Your task to perform on an android device: turn off improve location accuracy Image 0: 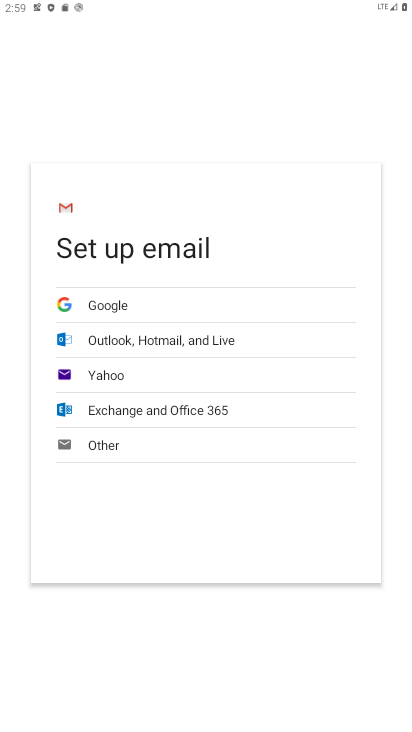
Step 0: press home button
Your task to perform on an android device: turn off improve location accuracy Image 1: 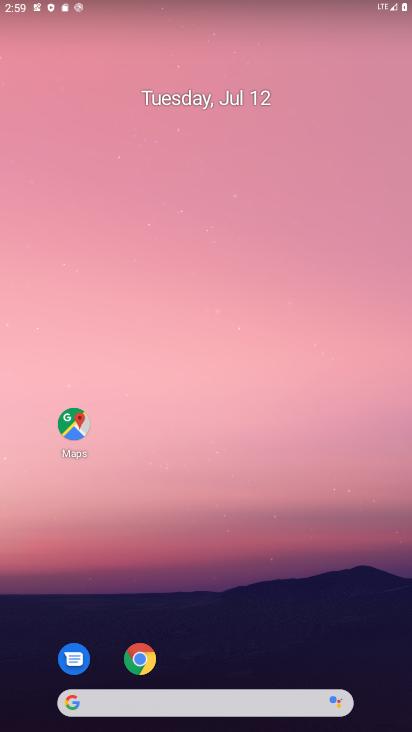
Step 1: click (199, 726)
Your task to perform on an android device: turn off improve location accuracy Image 2: 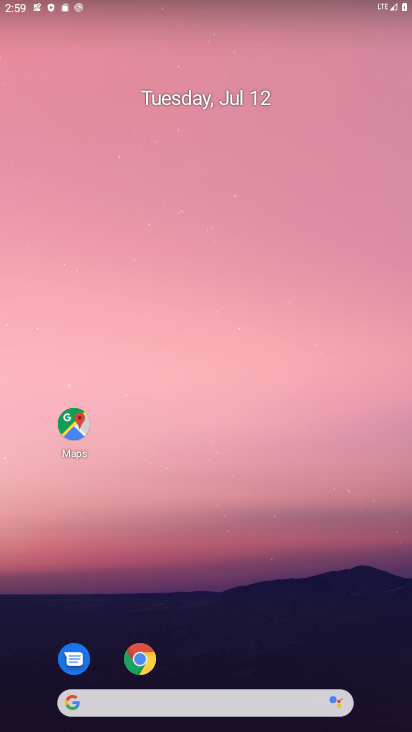
Step 2: click (176, 109)
Your task to perform on an android device: turn off improve location accuracy Image 3: 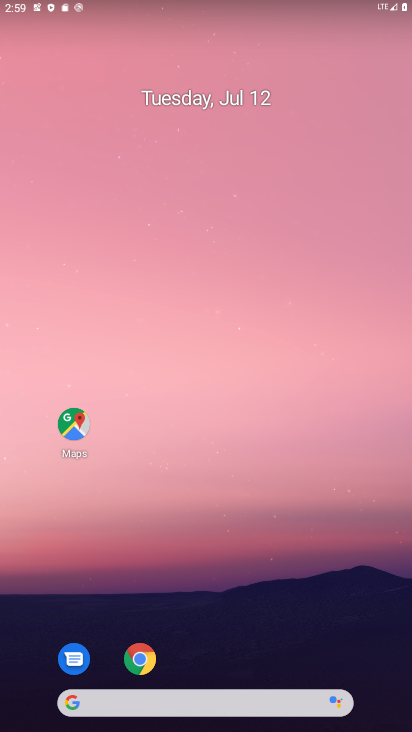
Step 3: drag from (217, 709) to (220, 139)
Your task to perform on an android device: turn off improve location accuracy Image 4: 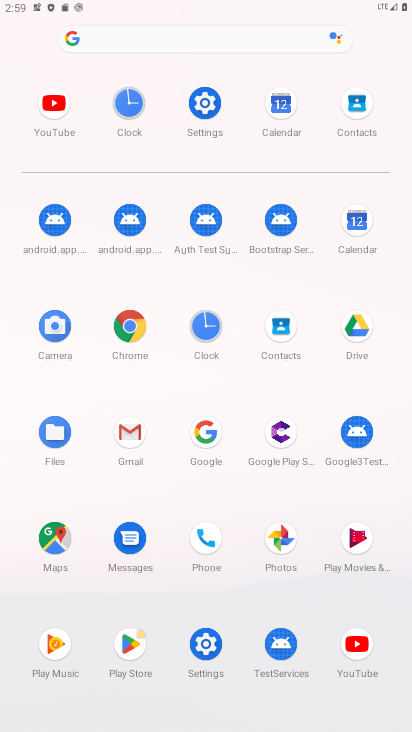
Step 4: click (204, 94)
Your task to perform on an android device: turn off improve location accuracy Image 5: 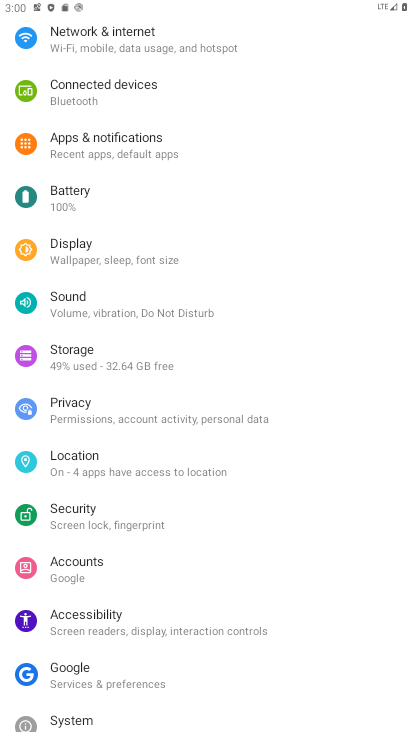
Step 5: click (75, 457)
Your task to perform on an android device: turn off improve location accuracy Image 6: 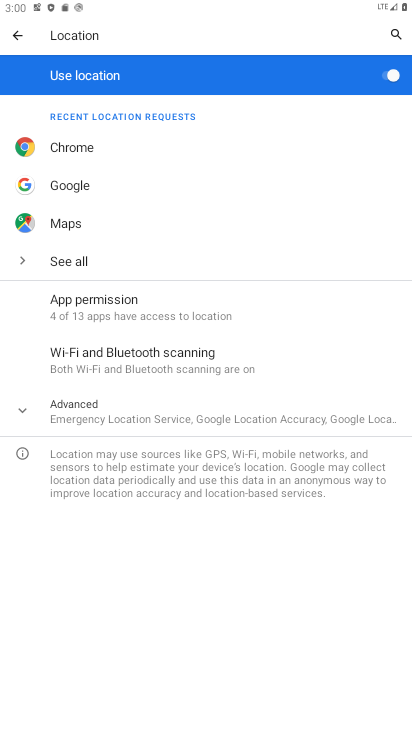
Step 6: click (74, 404)
Your task to perform on an android device: turn off improve location accuracy Image 7: 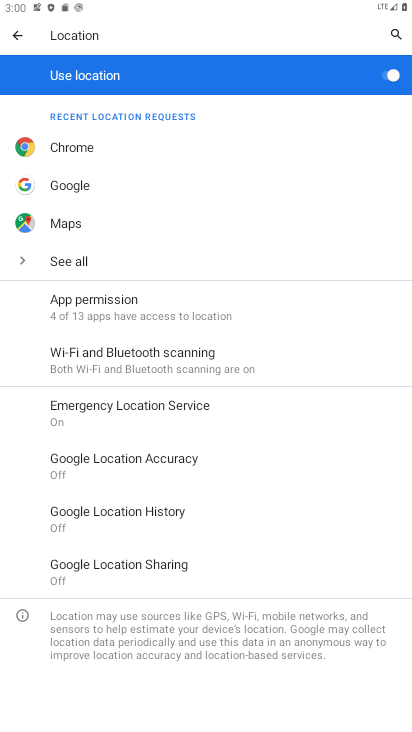
Step 7: click (103, 461)
Your task to perform on an android device: turn off improve location accuracy Image 8: 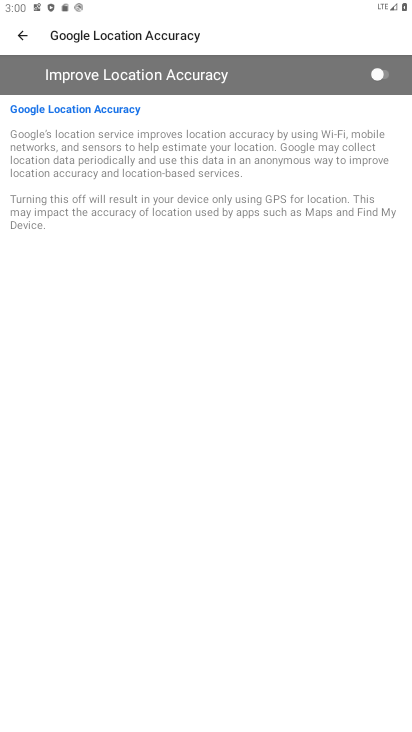
Step 8: task complete